Your task to perform on an android device: add a contact in the contacts app Image 0: 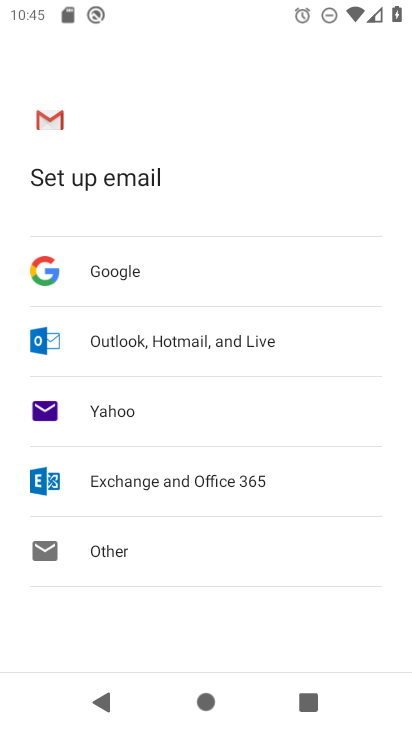
Step 0: press home button
Your task to perform on an android device: add a contact in the contacts app Image 1: 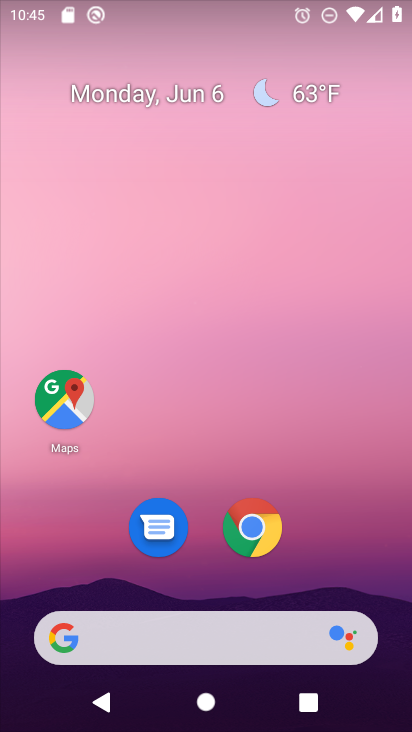
Step 1: drag from (348, 579) to (348, 222)
Your task to perform on an android device: add a contact in the contacts app Image 2: 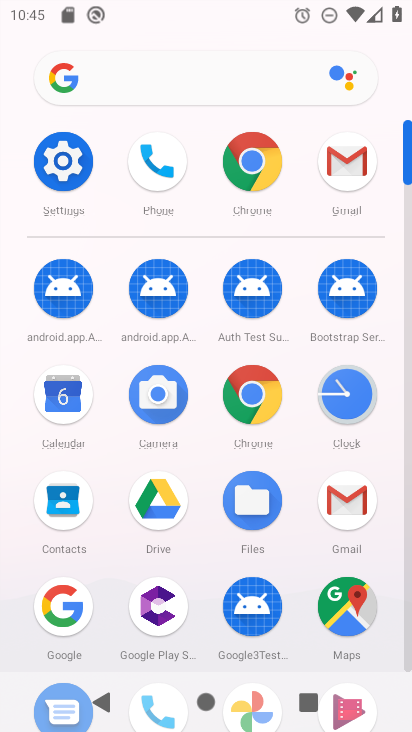
Step 2: click (62, 515)
Your task to perform on an android device: add a contact in the contacts app Image 3: 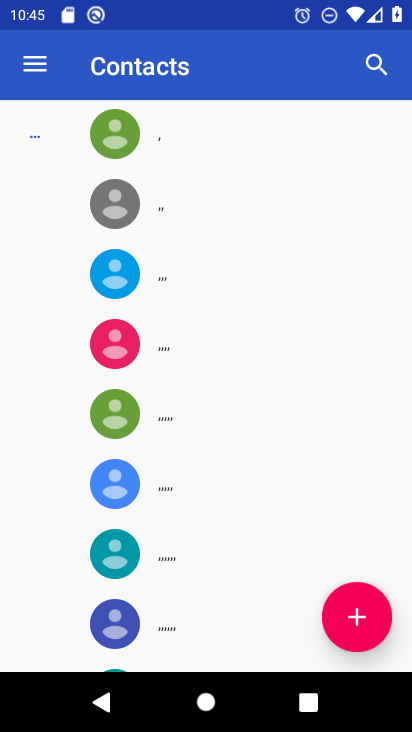
Step 3: click (344, 614)
Your task to perform on an android device: add a contact in the contacts app Image 4: 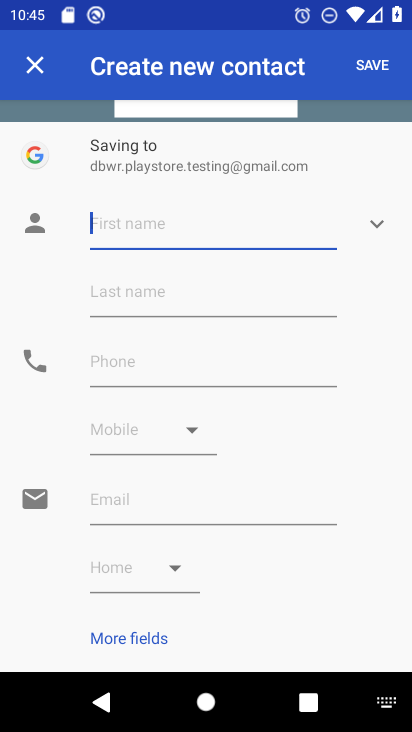
Step 4: click (232, 230)
Your task to perform on an android device: add a contact in the contacts app Image 5: 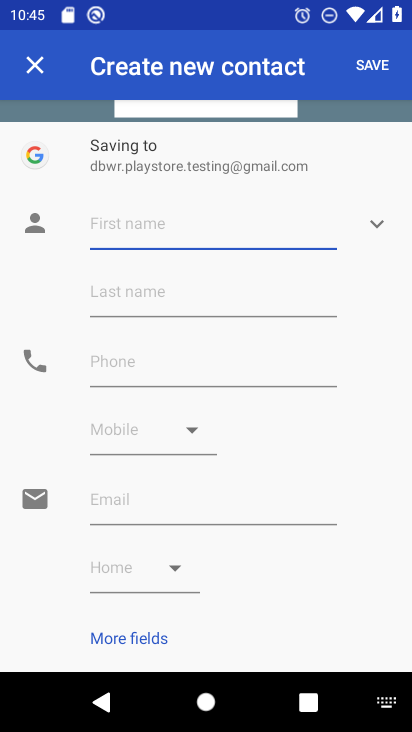
Step 5: type "aaaaa"
Your task to perform on an android device: add a contact in the contacts app Image 6: 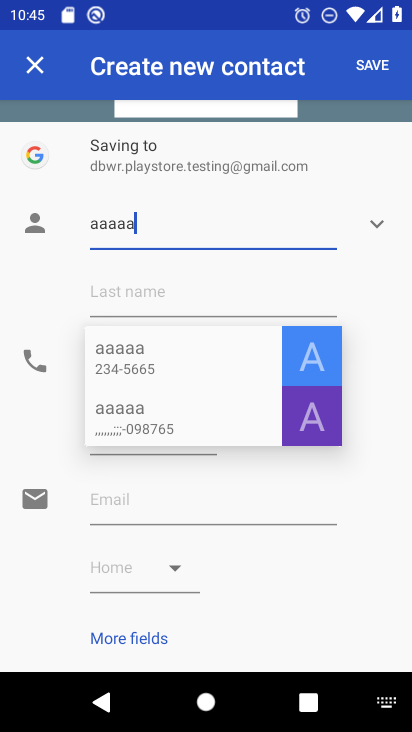
Step 6: click (387, 355)
Your task to perform on an android device: add a contact in the contacts app Image 7: 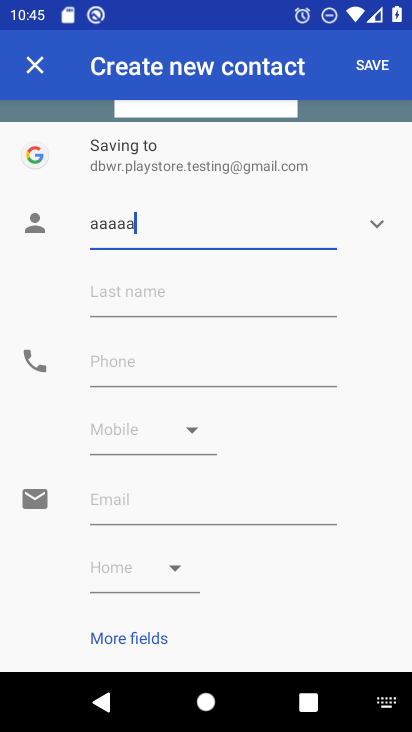
Step 7: click (259, 378)
Your task to perform on an android device: add a contact in the contacts app Image 8: 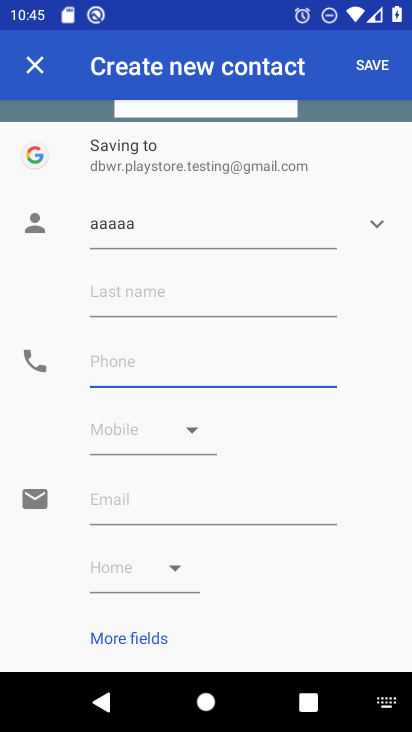
Step 8: type "1234567890"
Your task to perform on an android device: add a contact in the contacts app Image 9: 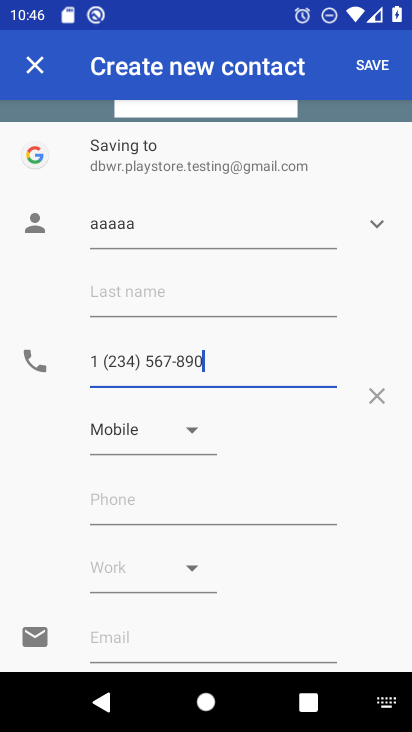
Step 9: click (373, 89)
Your task to perform on an android device: add a contact in the contacts app Image 10: 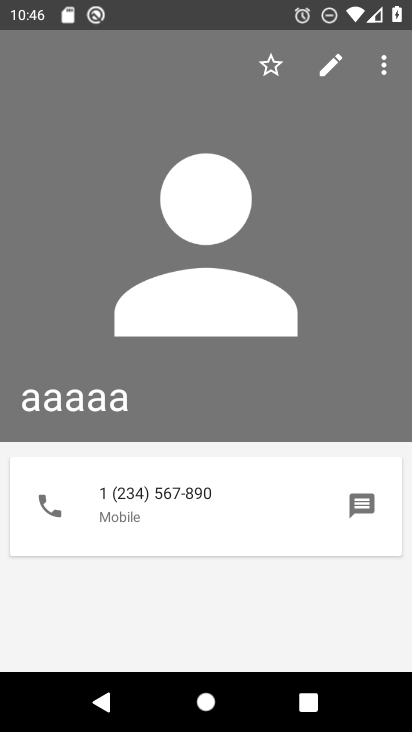
Step 10: task complete